Your task to perform on an android device: star an email in the gmail app Image 0: 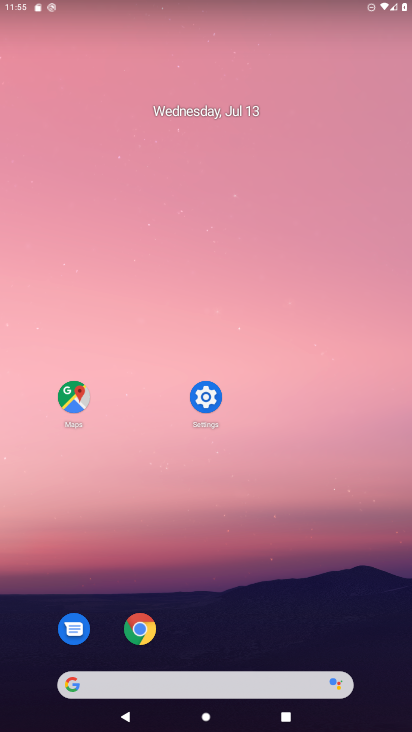
Step 0: drag from (394, 695) to (352, 181)
Your task to perform on an android device: star an email in the gmail app Image 1: 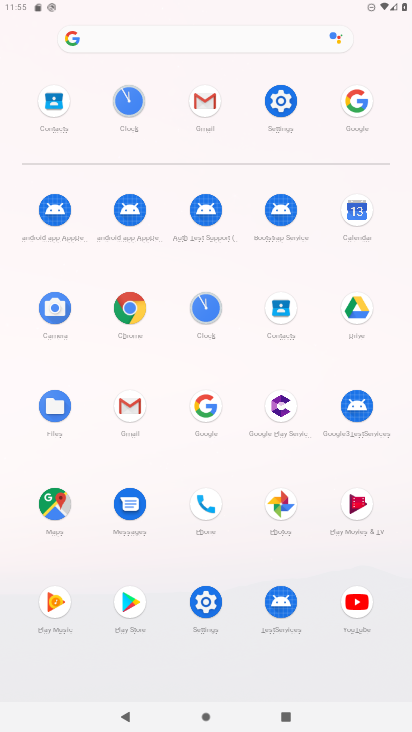
Step 1: drag from (118, 398) to (212, 535)
Your task to perform on an android device: star an email in the gmail app Image 2: 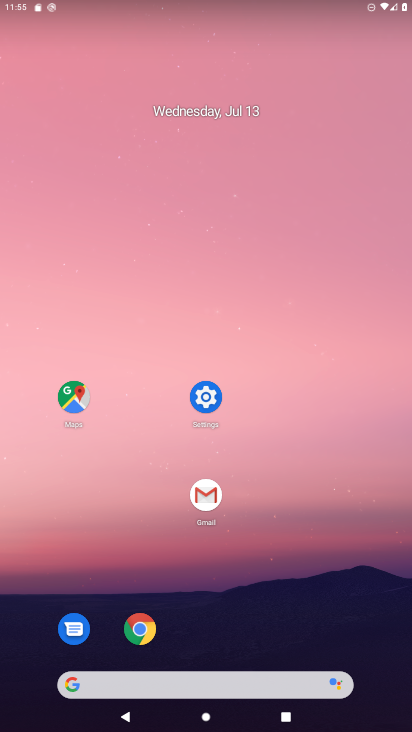
Step 2: click (193, 499)
Your task to perform on an android device: star an email in the gmail app Image 3: 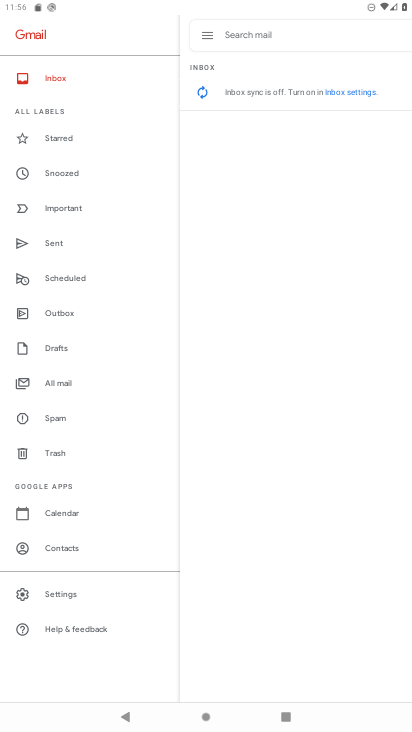
Step 3: task complete